Your task to perform on an android device: toggle javascript in the chrome app Image 0: 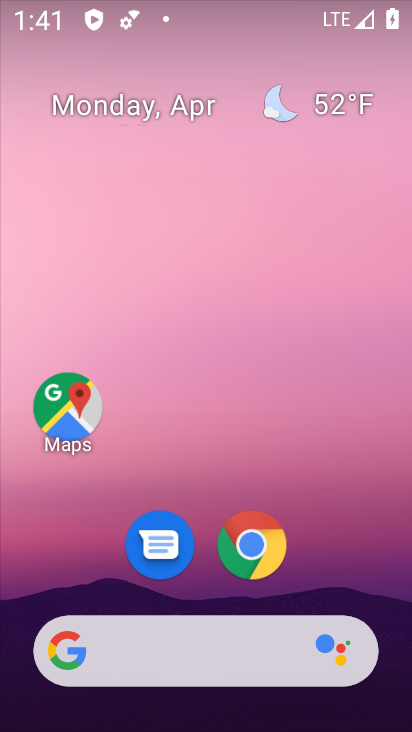
Step 0: click (248, 537)
Your task to perform on an android device: toggle javascript in the chrome app Image 1: 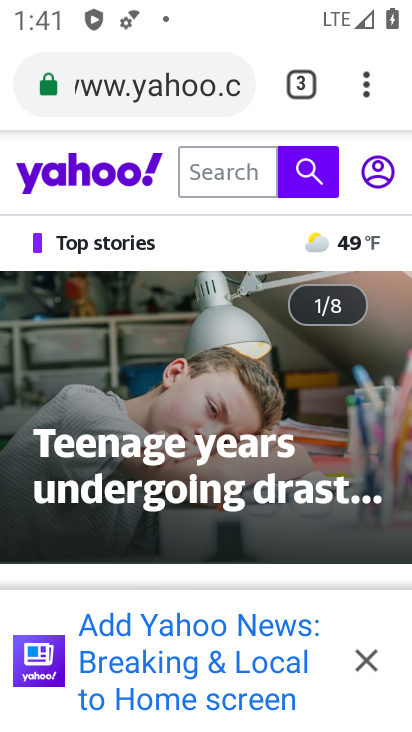
Step 1: click (365, 95)
Your task to perform on an android device: toggle javascript in the chrome app Image 2: 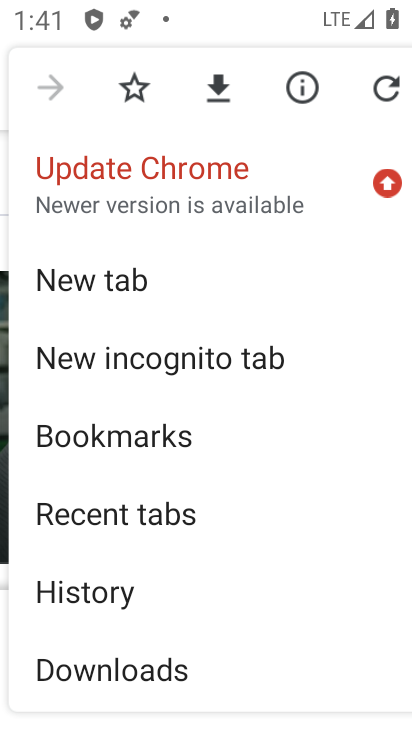
Step 2: drag from (82, 663) to (111, 285)
Your task to perform on an android device: toggle javascript in the chrome app Image 3: 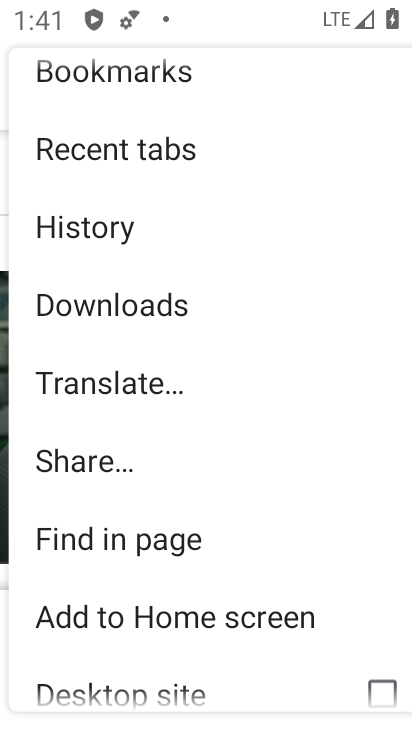
Step 3: drag from (168, 669) to (175, 335)
Your task to perform on an android device: toggle javascript in the chrome app Image 4: 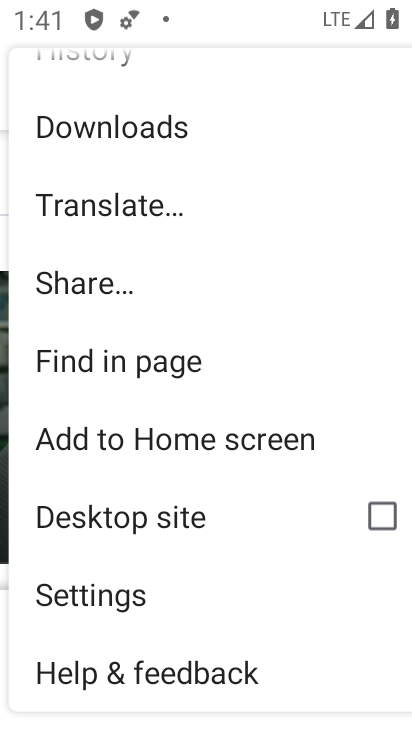
Step 4: click (102, 594)
Your task to perform on an android device: toggle javascript in the chrome app Image 5: 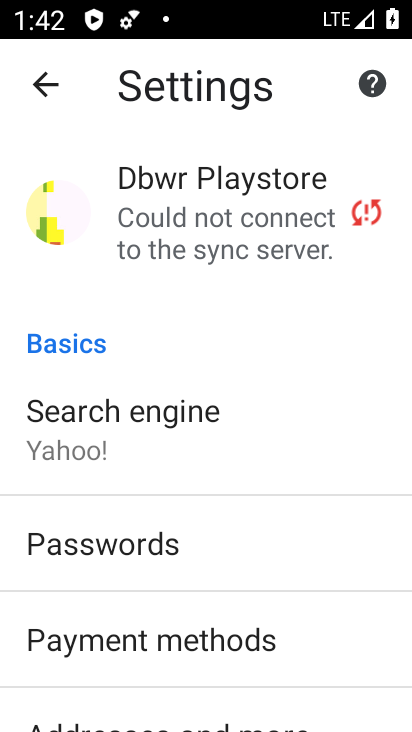
Step 5: drag from (173, 713) to (217, 267)
Your task to perform on an android device: toggle javascript in the chrome app Image 6: 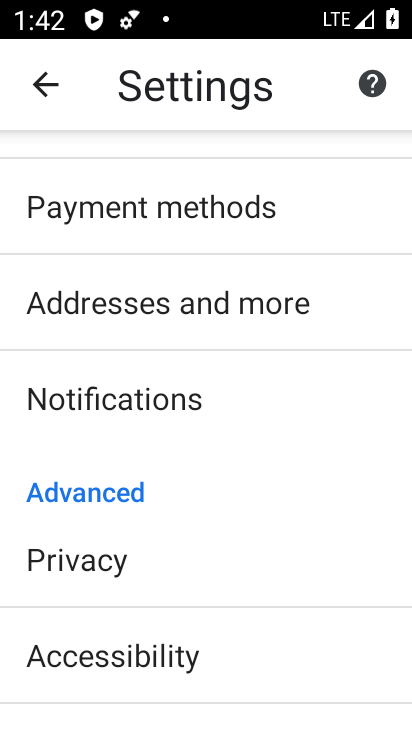
Step 6: drag from (232, 639) to (223, 328)
Your task to perform on an android device: toggle javascript in the chrome app Image 7: 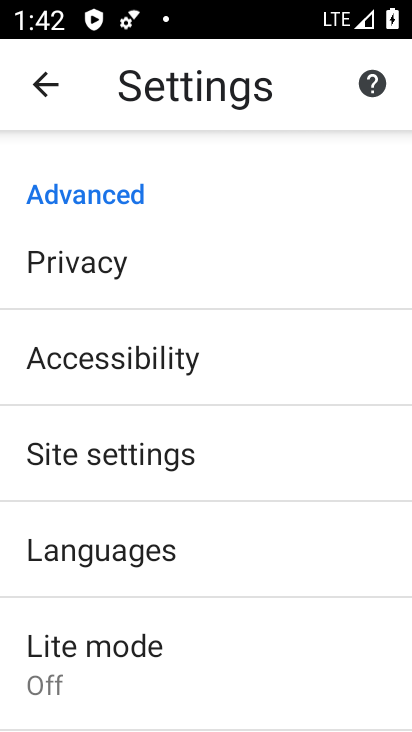
Step 7: click (117, 453)
Your task to perform on an android device: toggle javascript in the chrome app Image 8: 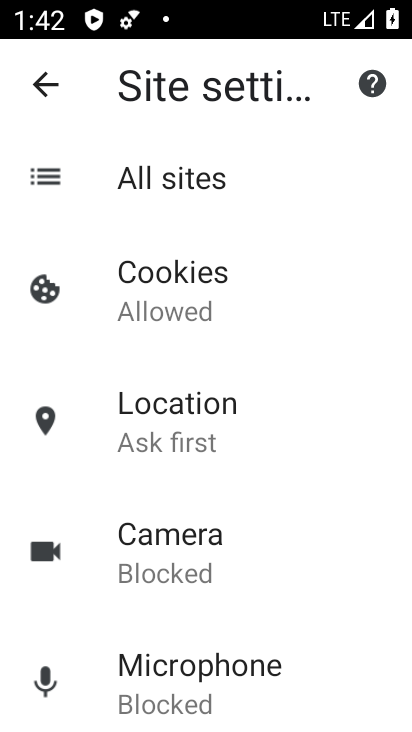
Step 8: drag from (232, 682) to (205, 277)
Your task to perform on an android device: toggle javascript in the chrome app Image 9: 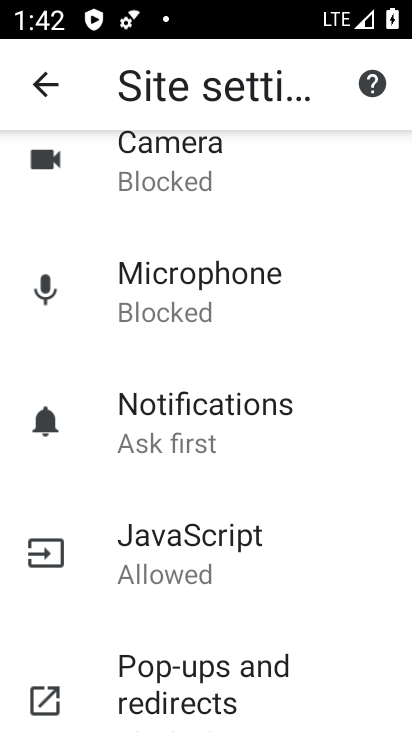
Step 9: click (170, 538)
Your task to perform on an android device: toggle javascript in the chrome app Image 10: 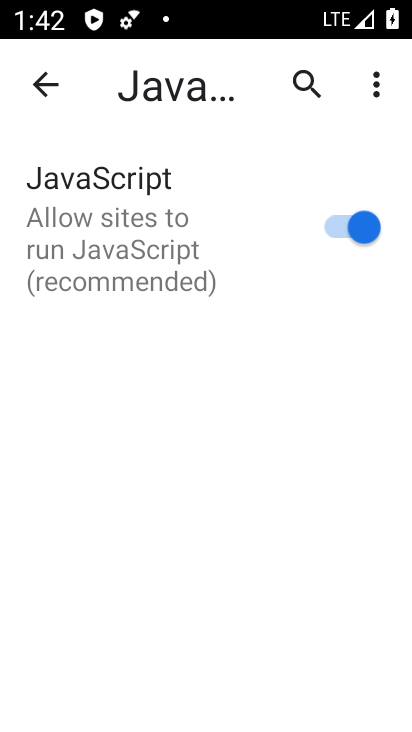
Step 10: click (340, 224)
Your task to perform on an android device: toggle javascript in the chrome app Image 11: 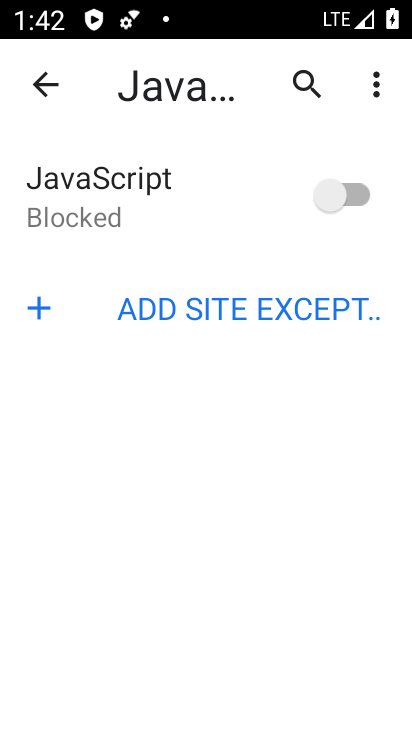
Step 11: task complete